Your task to perform on an android device: clear all cookies in the chrome app Image 0: 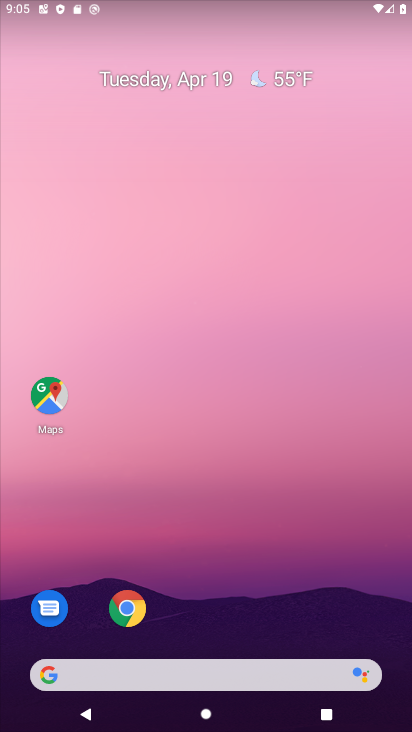
Step 0: click (127, 616)
Your task to perform on an android device: clear all cookies in the chrome app Image 1: 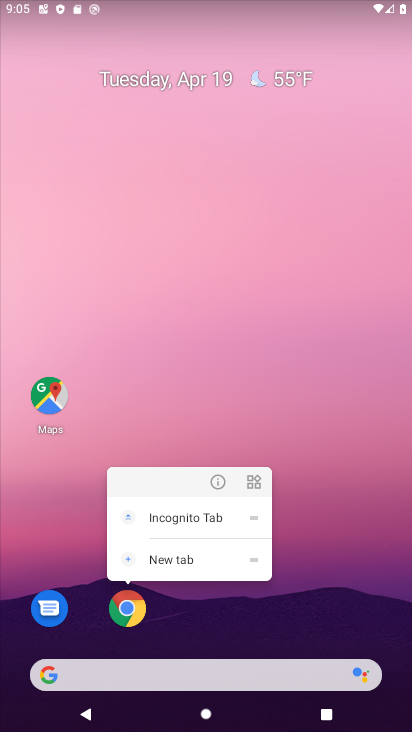
Step 1: click (127, 607)
Your task to perform on an android device: clear all cookies in the chrome app Image 2: 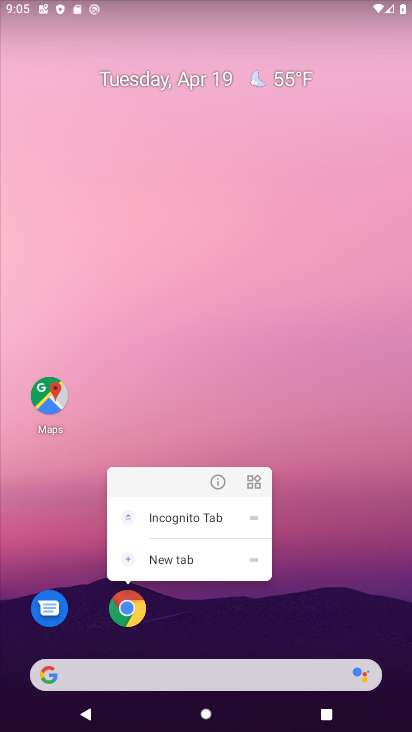
Step 2: click (135, 607)
Your task to perform on an android device: clear all cookies in the chrome app Image 3: 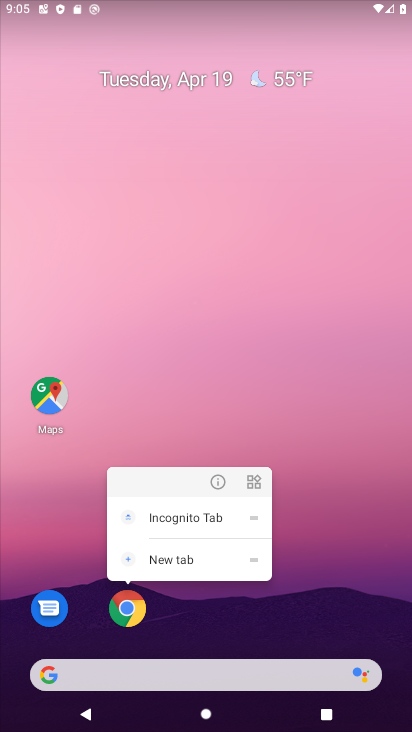
Step 3: click (135, 607)
Your task to perform on an android device: clear all cookies in the chrome app Image 4: 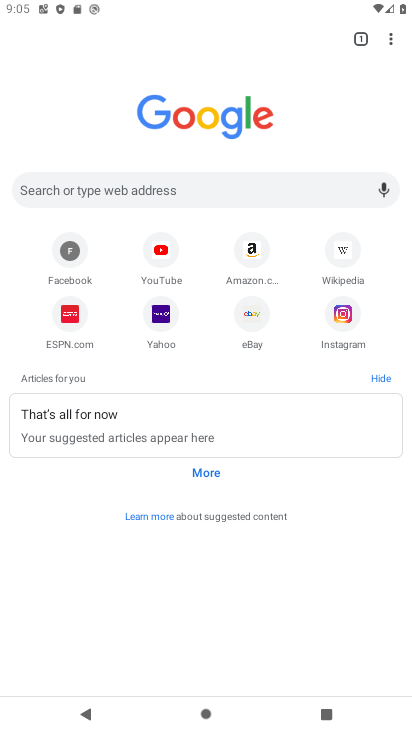
Step 4: drag from (389, 36) to (305, 334)
Your task to perform on an android device: clear all cookies in the chrome app Image 5: 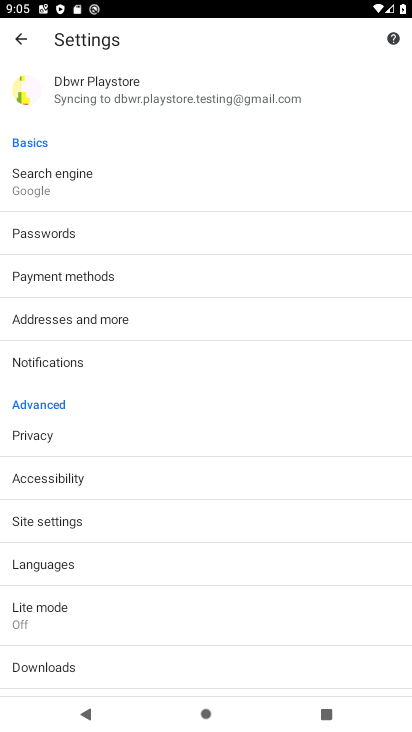
Step 5: click (97, 443)
Your task to perform on an android device: clear all cookies in the chrome app Image 6: 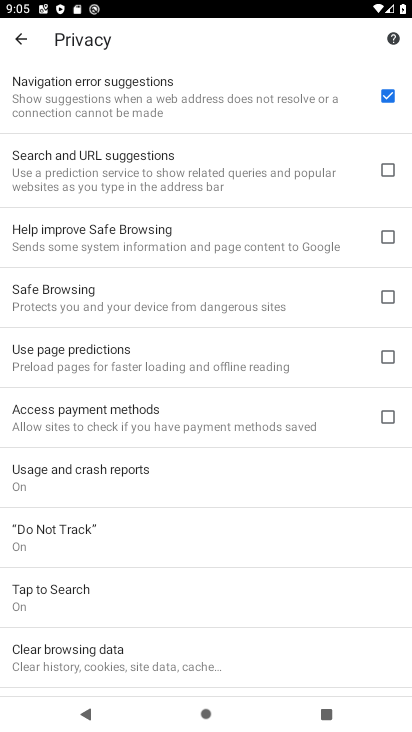
Step 6: drag from (133, 575) to (272, 102)
Your task to perform on an android device: clear all cookies in the chrome app Image 7: 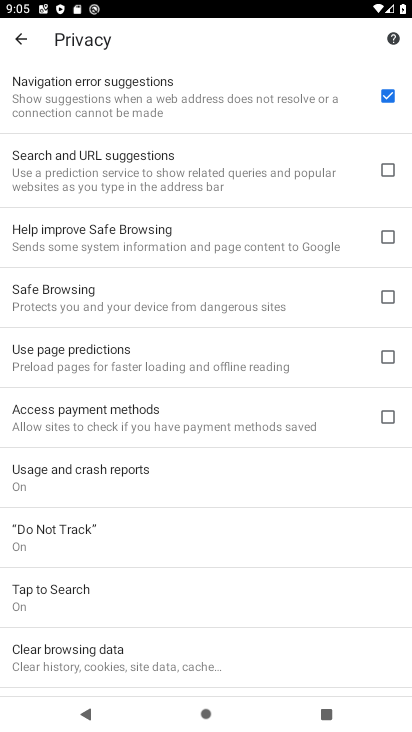
Step 7: click (89, 672)
Your task to perform on an android device: clear all cookies in the chrome app Image 8: 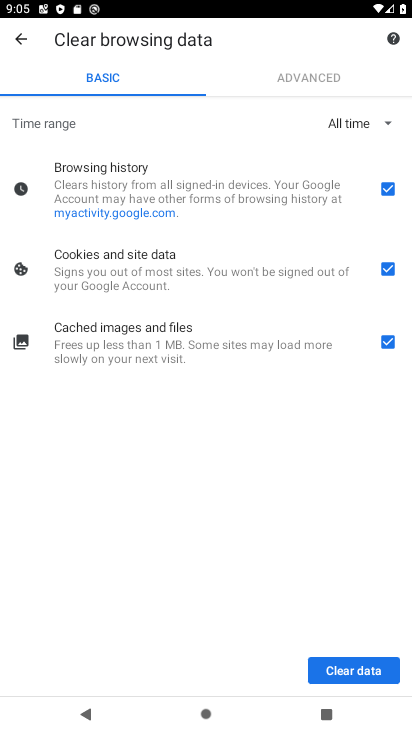
Step 8: click (386, 185)
Your task to perform on an android device: clear all cookies in the chrome app Image 9: 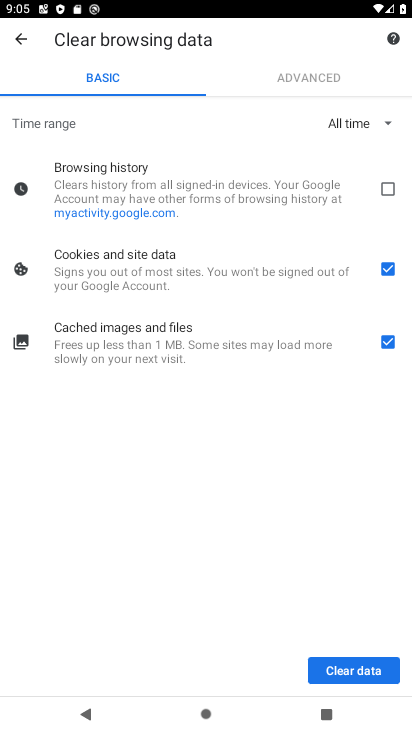
Step 9: click (388, 342)
Your task to perform on an android device: clear all cookies in the chrome app Image 10: 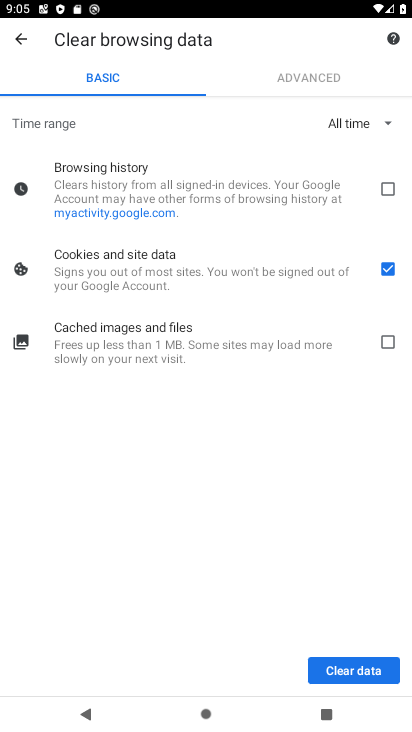
Step 10: click (355, 670)
Your task to perform on an android device: clear all cookies in the chrome app Image 11: 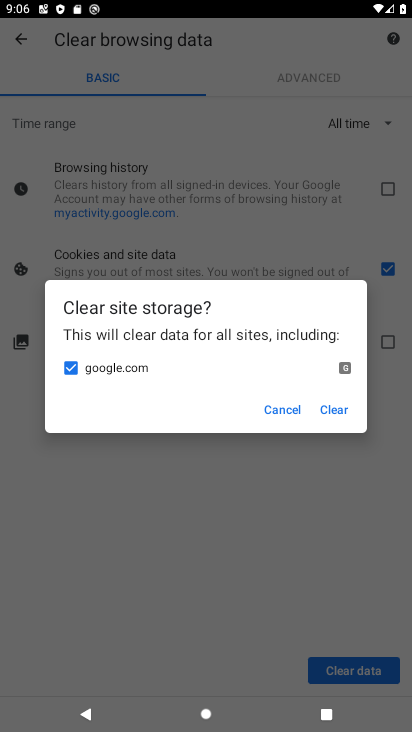
Step 11: click (351, 415)
Your task to perform on an android device: clear all cookies in the chrome app Image 12: 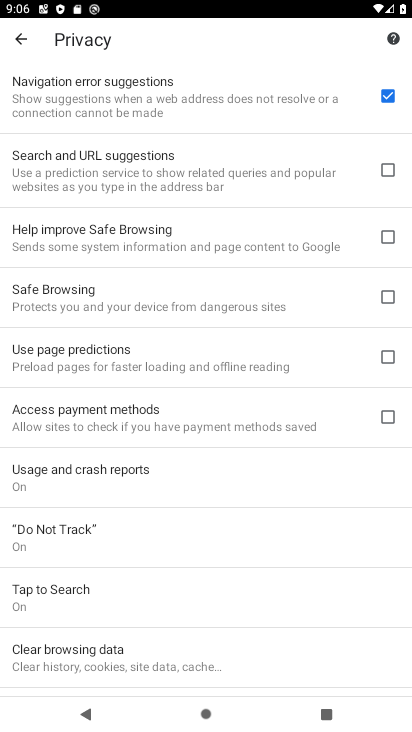
Step 12: task complete